Your task to perform on an android device: turn off wifi Image 0: 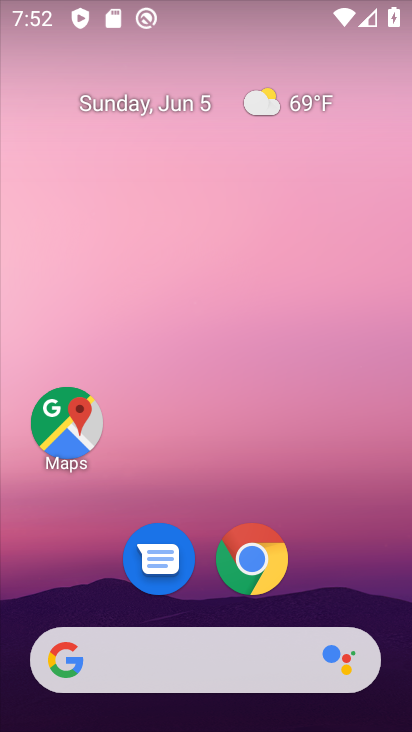
Step 0: drag from (318, 385) to (246, 101)
Your task to perform on an android device: turn off wifi Image 1: 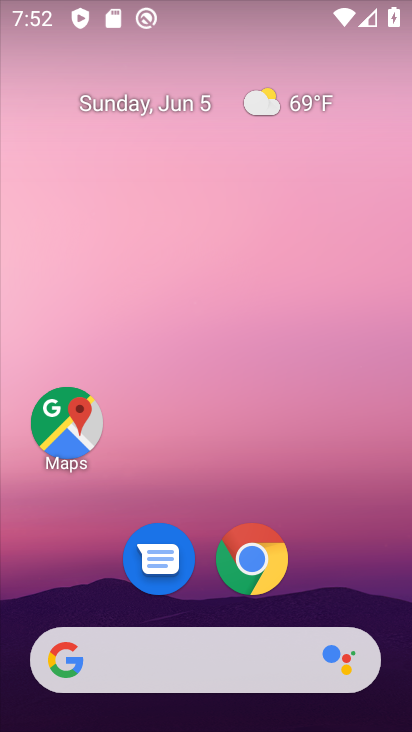
Step 1: drag from (397, 523) to (288, 67)
Your task to perform on an android device: turn off wifi Image 2: 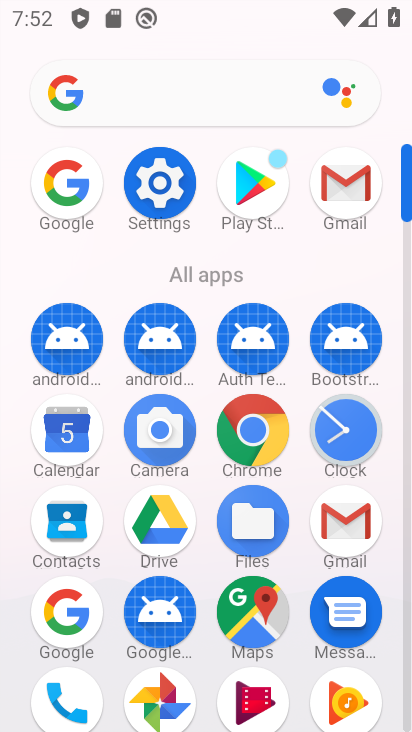
Step 2: click (166, 175)
Your task to perform on an android device: turn off wifi Image 3: 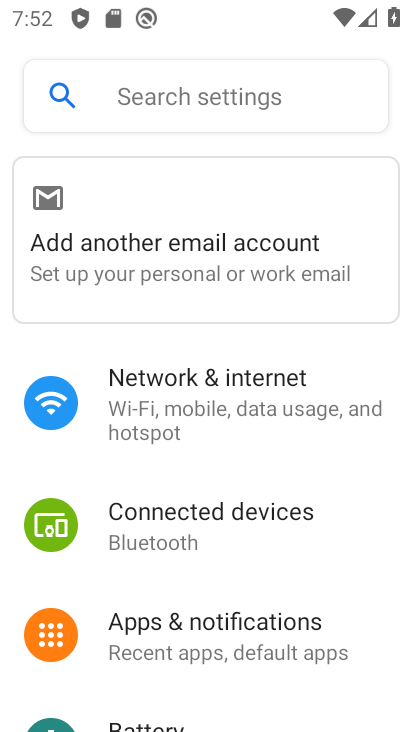
Step 3: click (208, 392)
Your task to perform on an android device: turn off wifi Image 4: 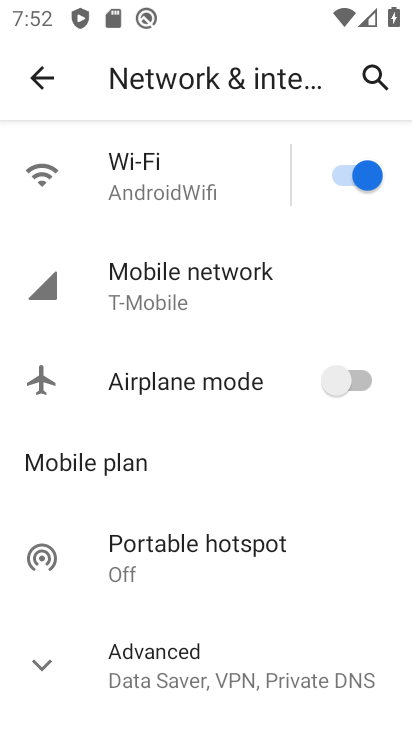
Step 4: click (360, 182)
Your task to perform on an android device: turn off wifi Image 5: 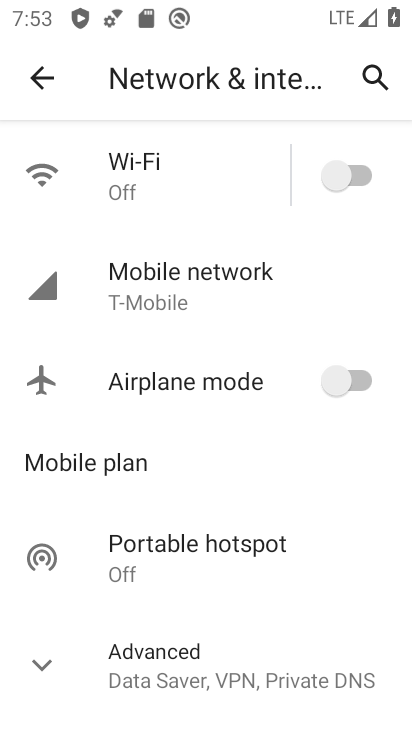
Step 5: task complete